Your task to perform on an android device: What is the news today? Image 0: 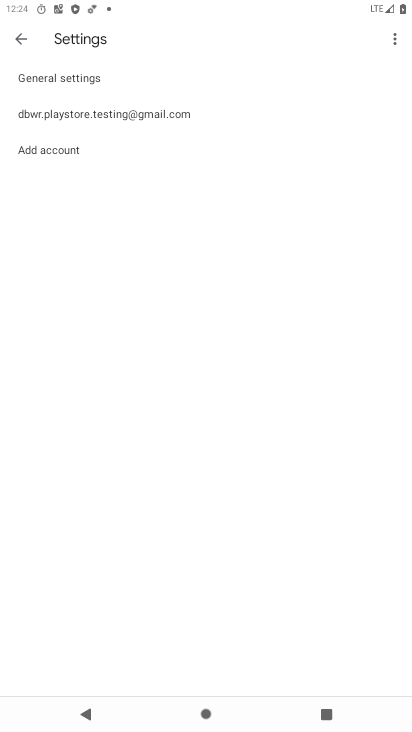
Step 0: press home button
Your task to perform on an android device: What is the news today? Image 1: 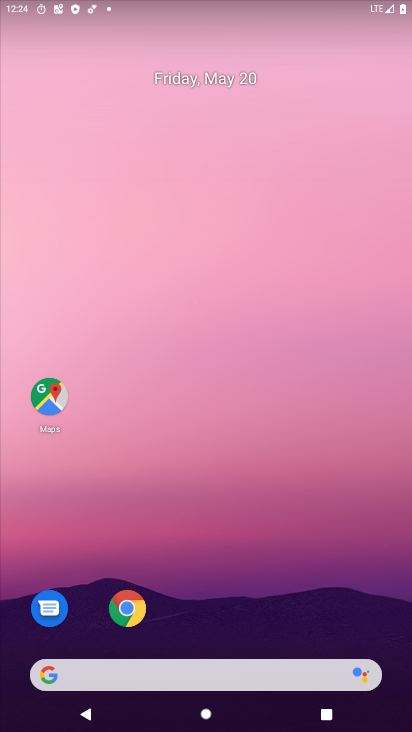
Step 1: drag from (340, 590) to (243, 291)
Your task to perform on an android device: What is the news today? Image 2: 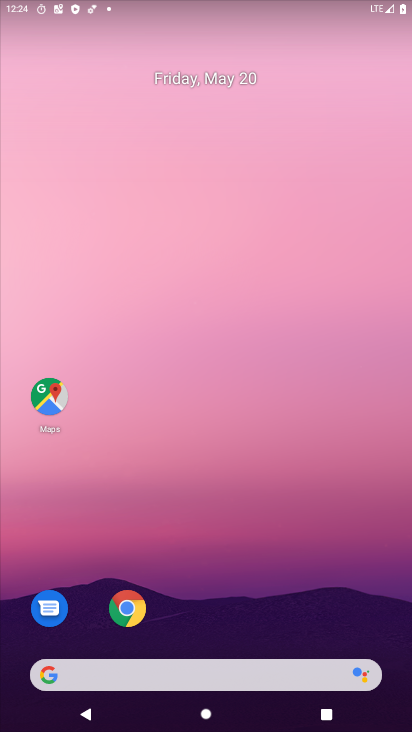
Step 2: drag from (307, 608) to (268, 136)
Your task to perform on an android device: What is the news today? Image 3: 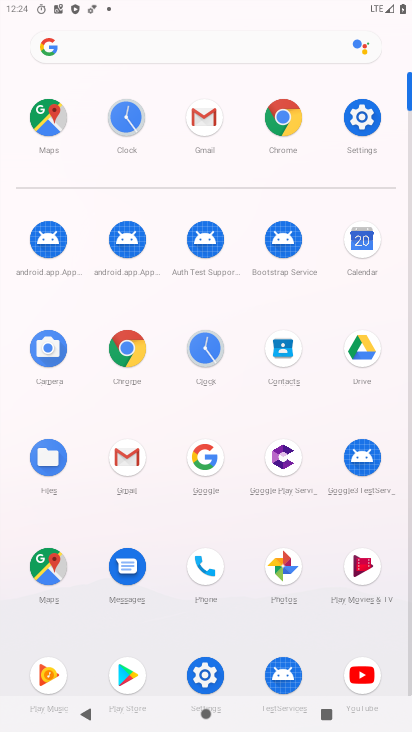
Step 3: click (123, 346)
Your task to perform on an android device: What is the news today? Image 4: 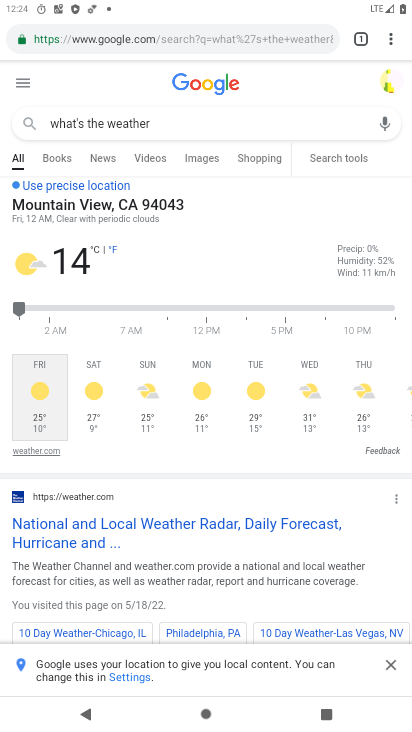
Step 4: click (357, 33)
Your task to perform on an android device: What is the news today? Image 5: 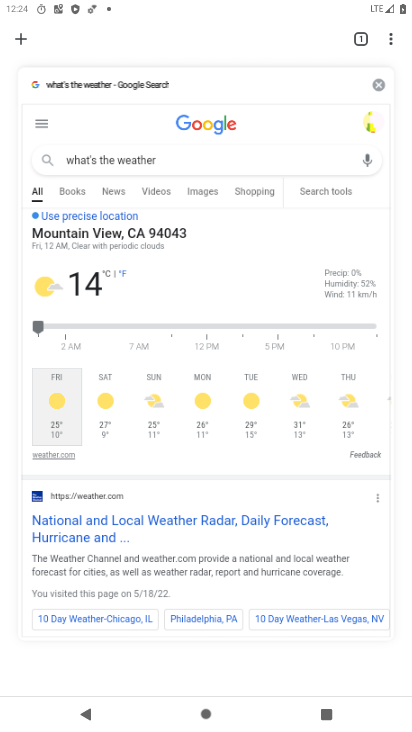
Step 5: click (22, 38)
Your task to perform on an android device: What is the news today? Image 6: 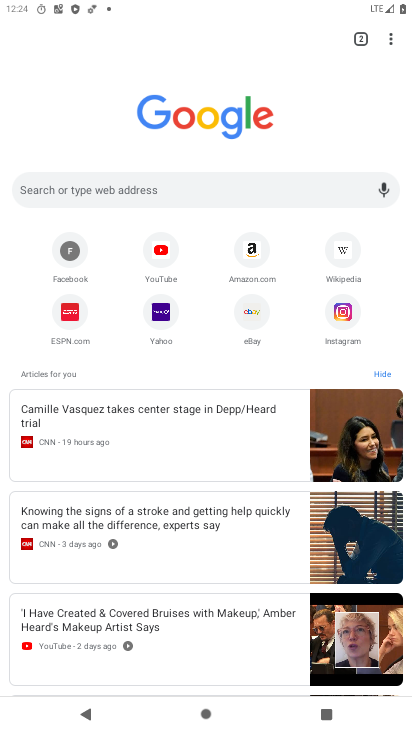
Step 6: click (230, 179)
Your task to perform on an android device: What is the news today? Image 7: 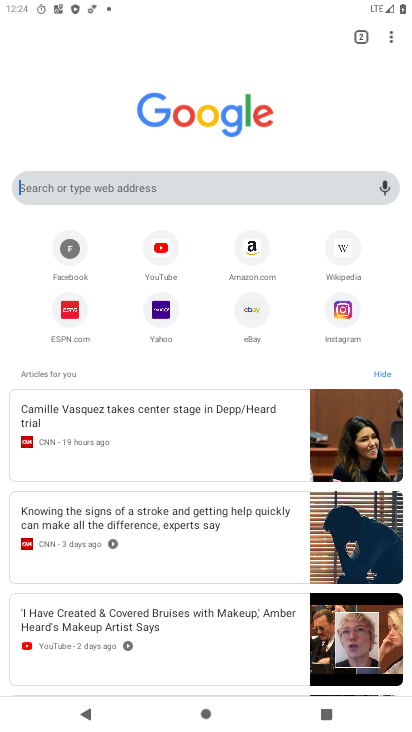
Step 7: click (230, 190)
Your task to perform on an android device: What is the news today? Image 8: 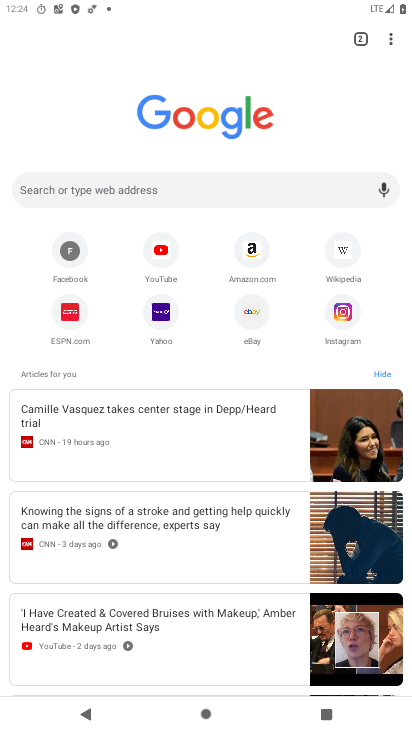
Step 8: type "what is the news today"
Your task to perform on an android device: What is the news today? Image 9: 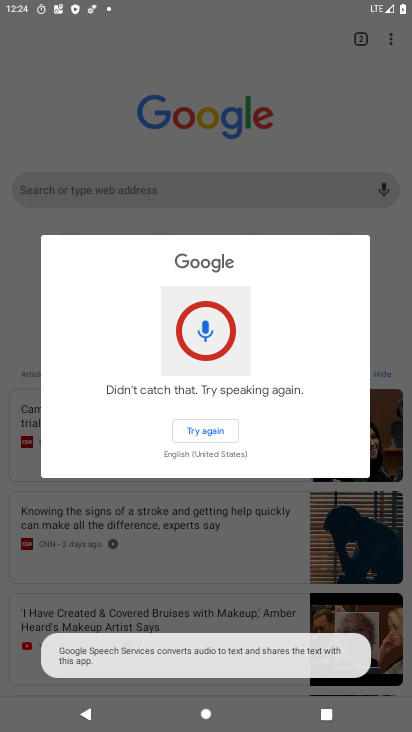
Step 9: click (152, 185)
Your task to perform on an android device: What is the news today? Image 10: 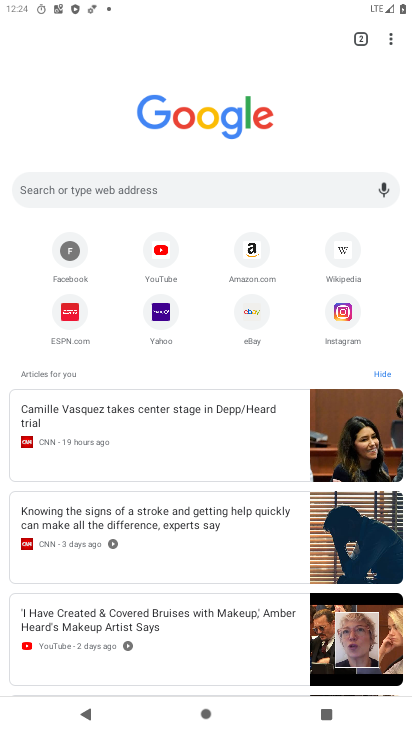
Step 10: click (139, 184)
Your task to perform on an android device: What is the news today? Image 11: 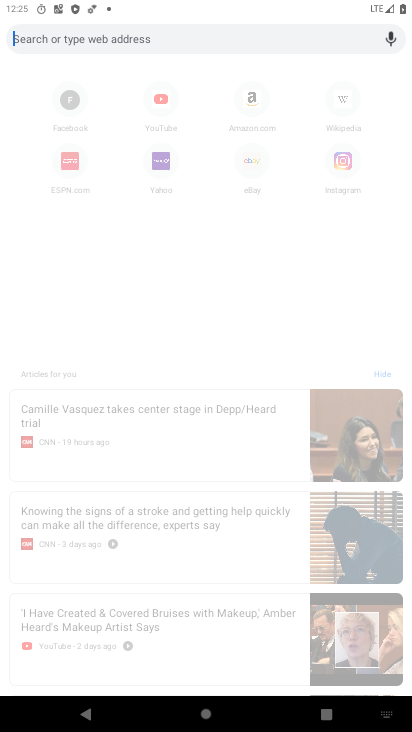
Step 11: type "what is the news today"
Your task to perform on an android device: What is the news today? Image 12: 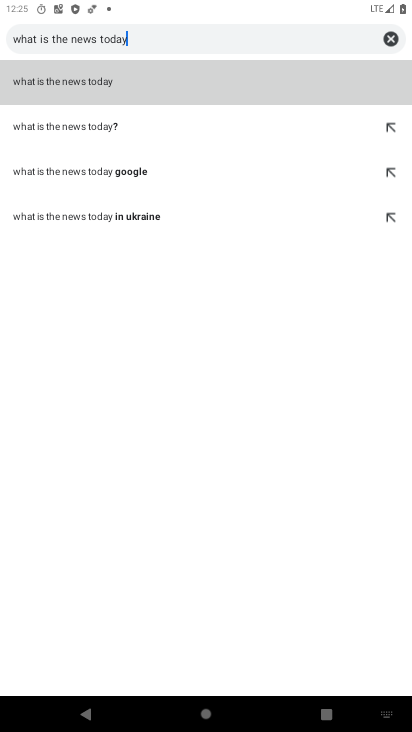
Step 12: click (112, 92)
Your task to perform on an android device: What is the news today? Image 13: 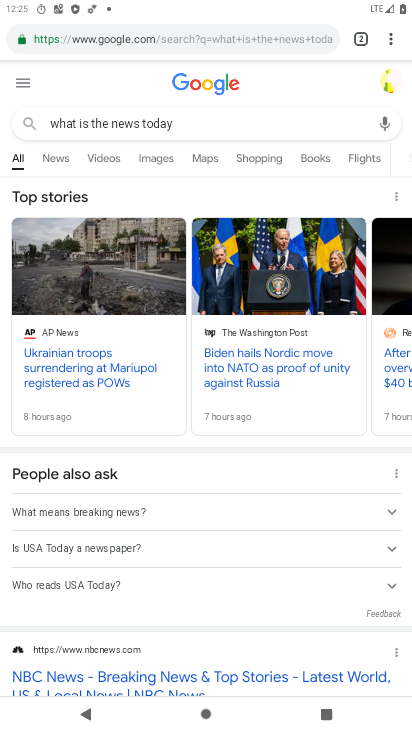
Step 13: task complete